Your task to perform on an android device: Open the Play Movies app and select the watchlist tab. Image 0: 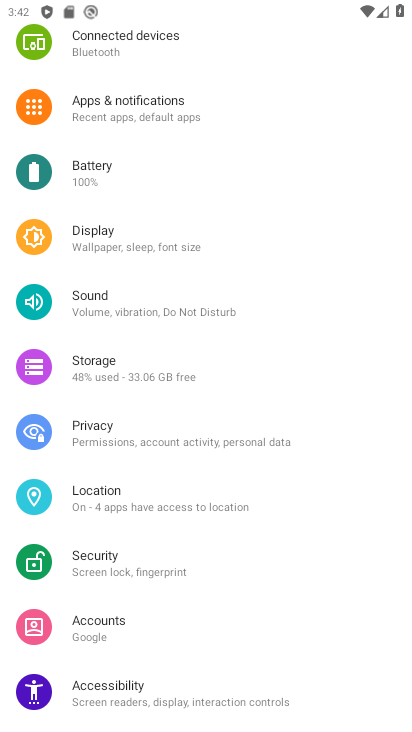
Step 0: press home button
Your task to perform on an android device: Open the Play Movies app and select the watchlist tab. Image 1: 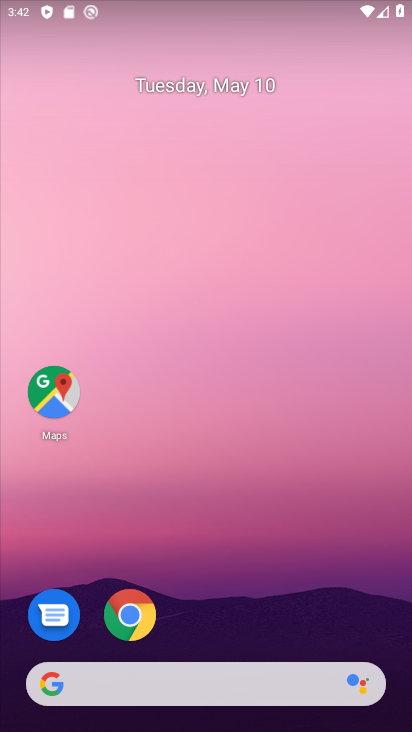
Step 1: drag from (242, 541) to (257, 193)
Your task to perform on an android device: Open the Play Movies app and select the watchlist tab. Image 2: 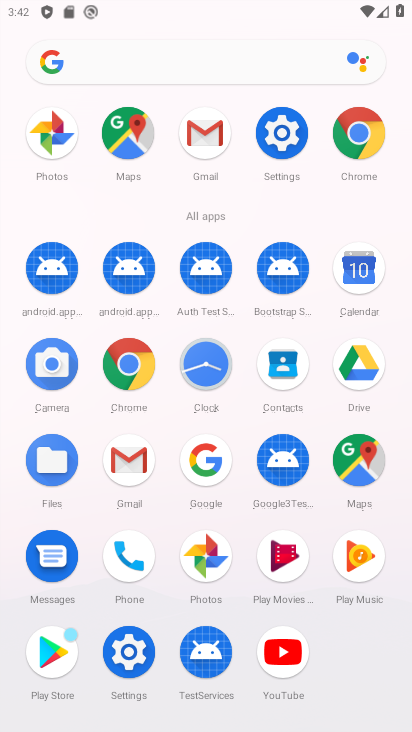
Step 2: click (292, 570)
Your task to perform on an android device: Open the Play Movies app and select the watchlist tab. Image 3: 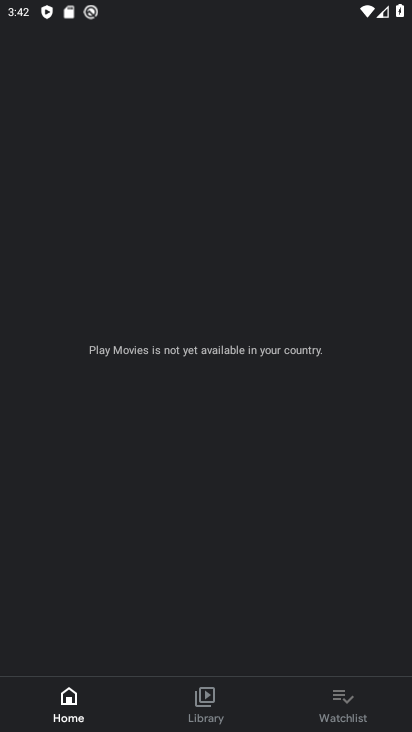
Step 3: click (337, 709)
Your task to perform on an android device: Open the Play Movies app and select the watchlist tab. Image 4: 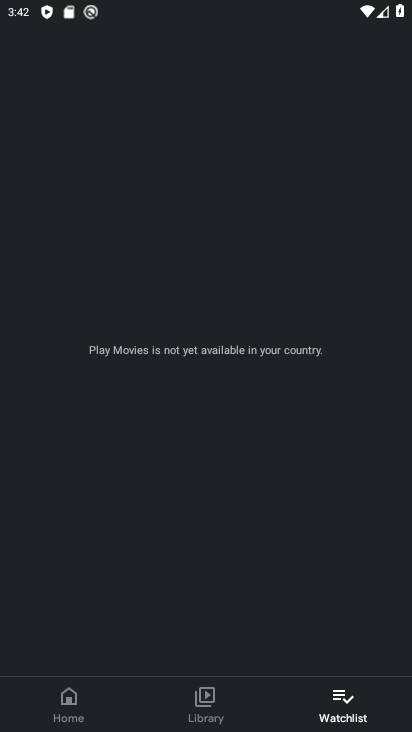
Step 4: task complete